Your task to perform on an android device: set the timer Image 0: 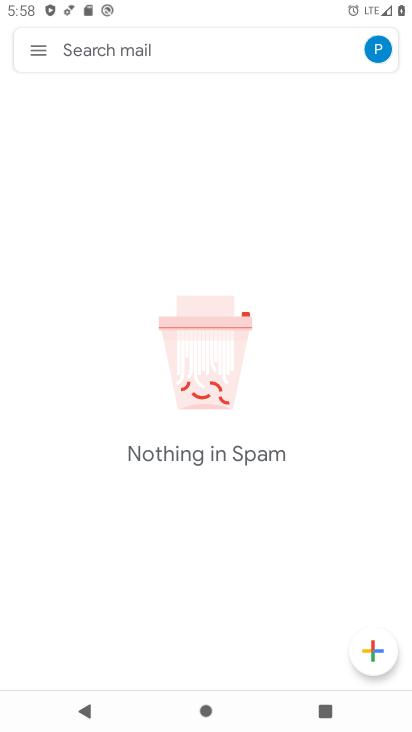
Step 0: press home button
Your task to perform on an android device: set the timer Image 1: 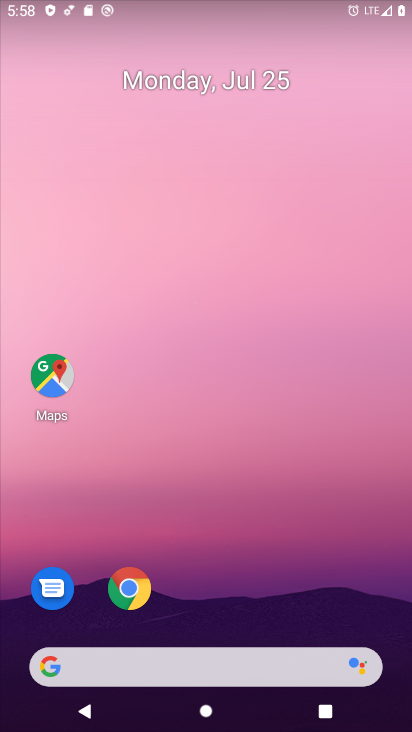
Step 1: drag from (189, 665) to (185, 143)
Your task to perform on an android device: set the timer Image 2: 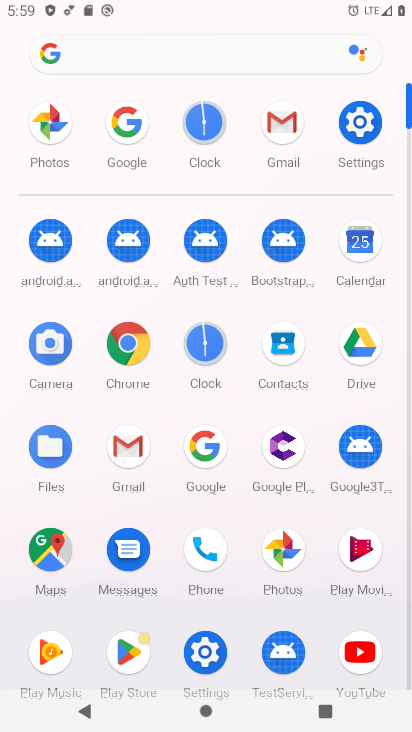
Step 2: click (203, 347)
Your task to perform on an android device: set the timer Image 3: 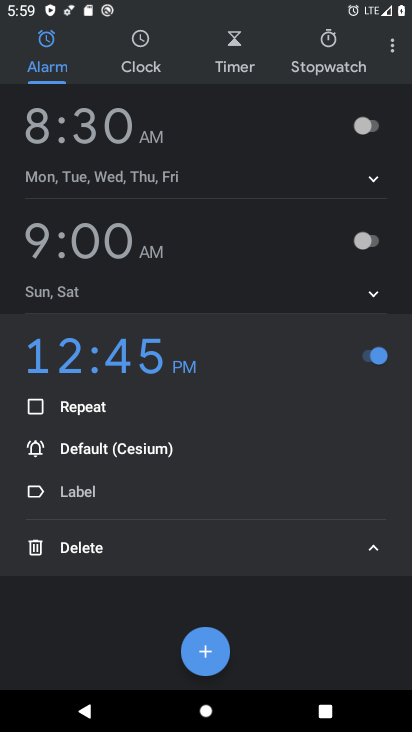
Step 3: click (233, 43)
Your task to perform on an android device: set the timer Image 4: 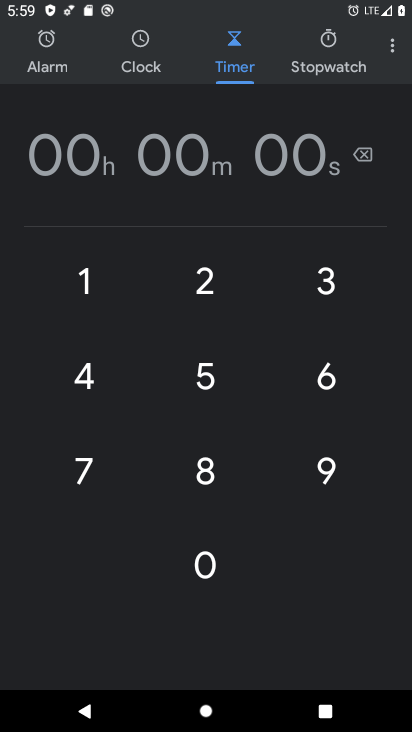
Step 4: type "135"
Your task to perform on an android device: set the timer Image 5: 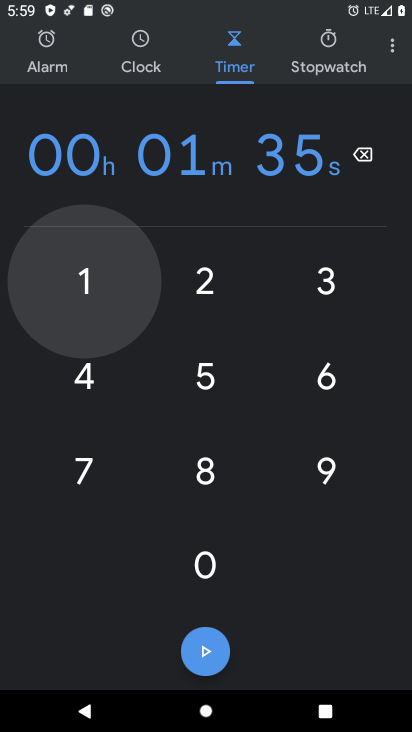
Step 5: click (206, 649)
Your task to perform on an android device: set the timer Image 6: 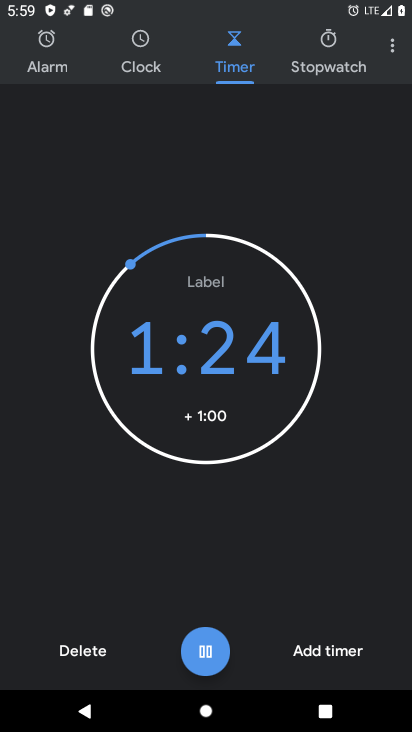
Step 6: click (206, 649)
Your task to perform on an android device: set the timer Image 7: 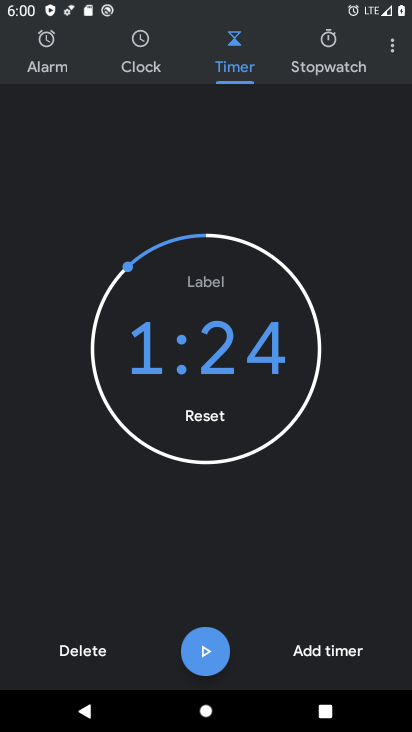
Step 7: task complete